Your task to perform on an android device: all mails in gmail Image 0: 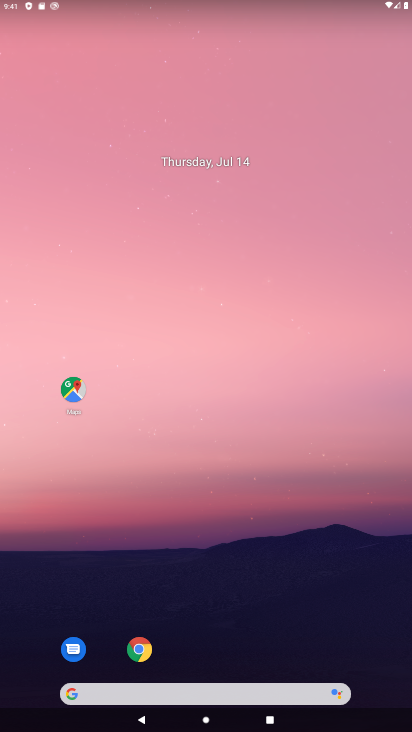
Step 0: drag from (189, 550) to (234, 107)
Your task to perform on an android device: all mails in gmail Image 1: 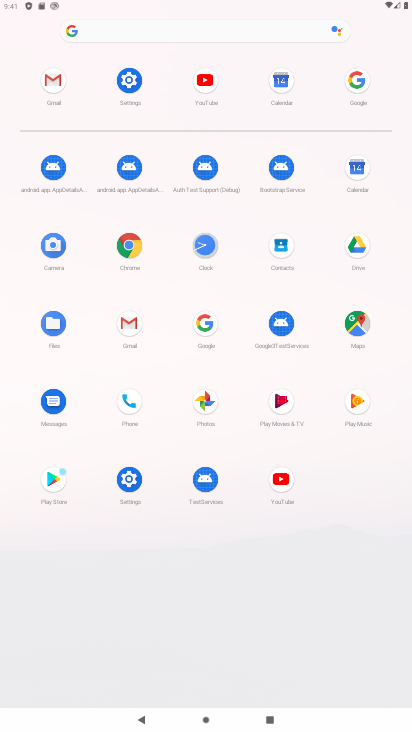
Step 1: click (51, 103)
Your task to perform on an android device: all mails in gmail Image 2: 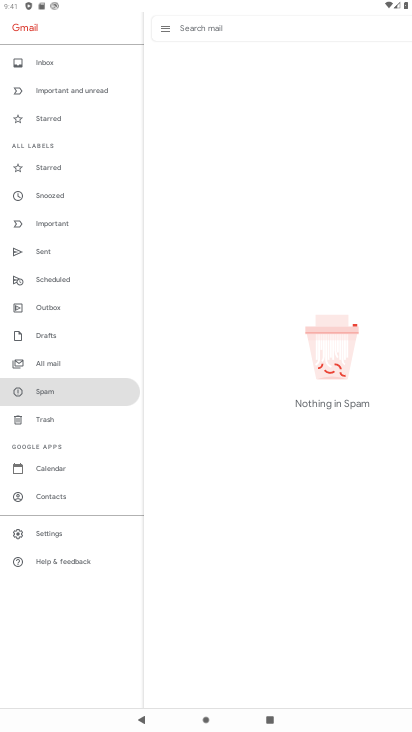
Step 2: click (50, 367)
Your task to perform on an android device: all mails in gmail Image 3: 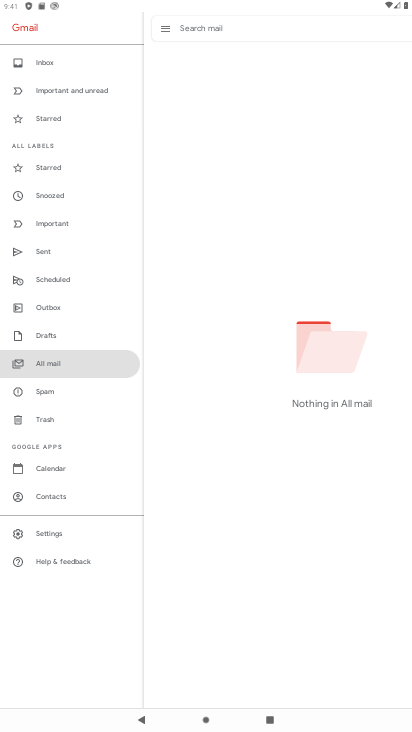
Step 3: task complete